Your task to perform on an android device: turn off airplane mode Image 0: 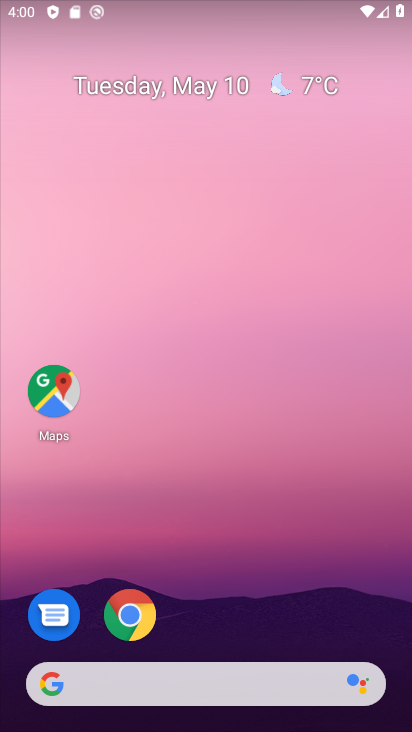
Step 0: drag from (242, 489) to (208, 3)
Your task to perform on an android device: turn off airplane mode Image 1: 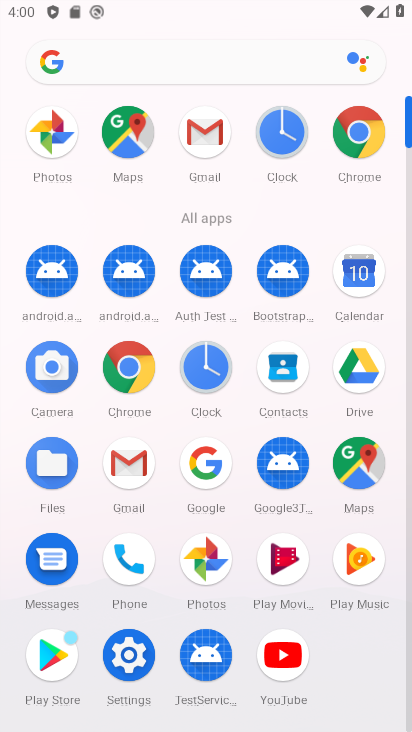
Step 1: drag from (9, 406) to (9, 305)
Your task to perform on an android device: turn off airplane mode Image 2: 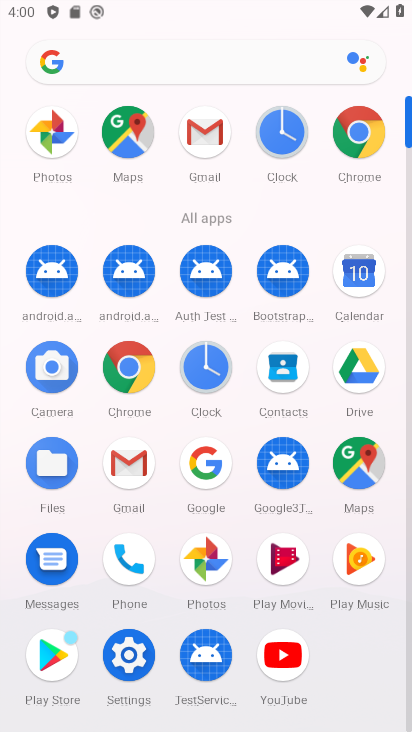
Step 2: click (127, 650)
Your task to perform on an android device: turn off airplane mode Image 3: 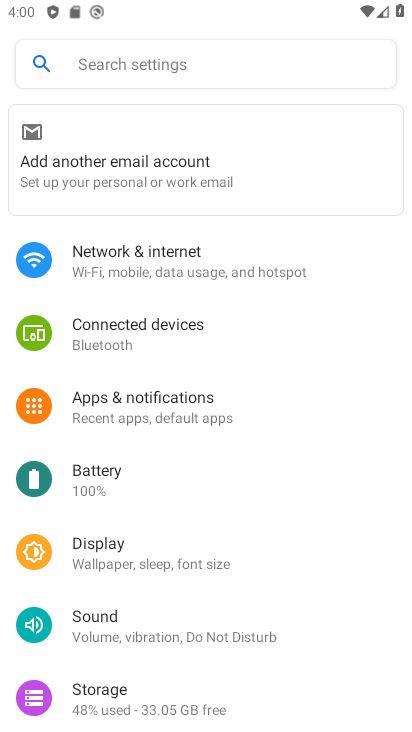
Step 3: click (184, 243)
Your task to perform on an android device: turn off airplane mode Image 4: 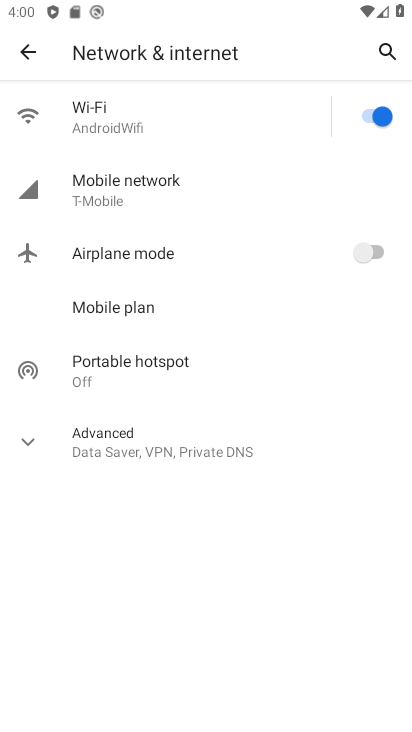
Step 4: click (38, 445)
Your task to perform on an android device: turn off airplane mode Image 5: 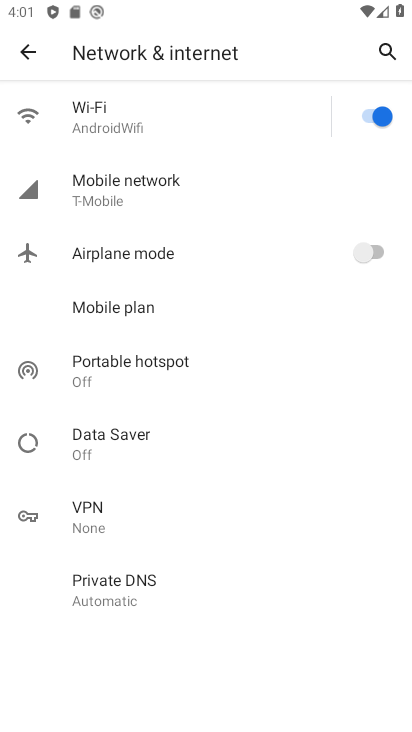
Step 5: task complete